Your task to perform on an android device: turn pop-ups on in chrome Image 0: 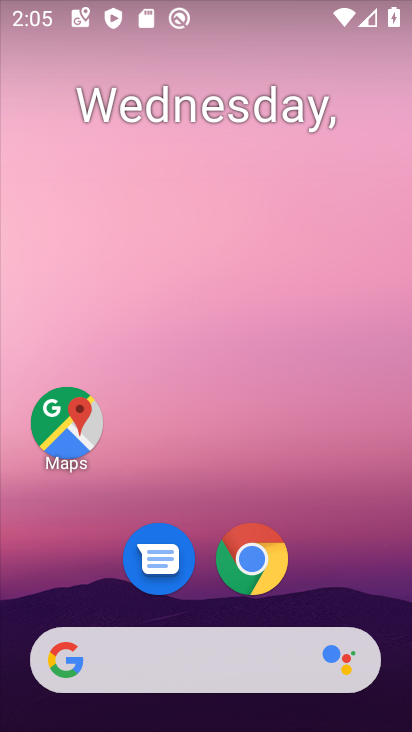
Step 0: press home button
Your task to perform on an android device: turn pop-ups on in chrome Image 1: 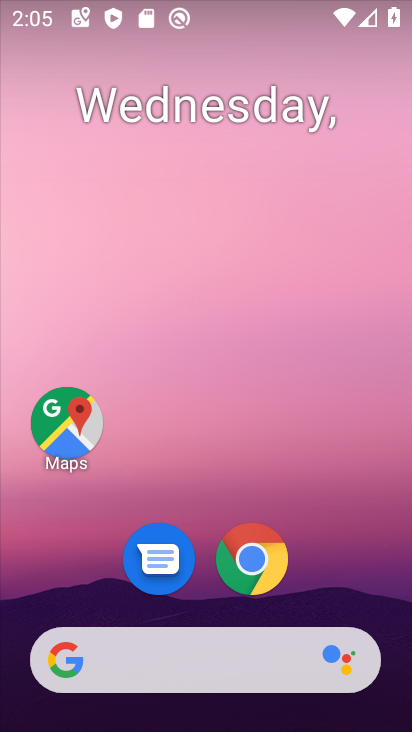
Step 1: drag from (359, 553) to (376, 6)
Your task to perform on an android device: turn pop-ups on in chrome Image 2: 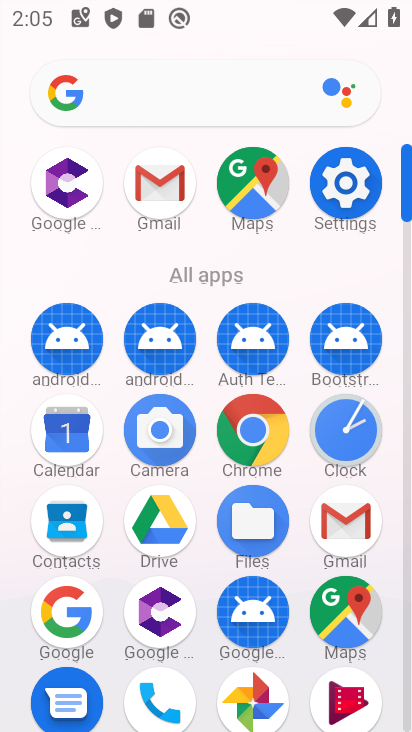
Step 2: click (262, 433)
Your task to perform on an android device: turn pop-ups on in chrome Image 3: 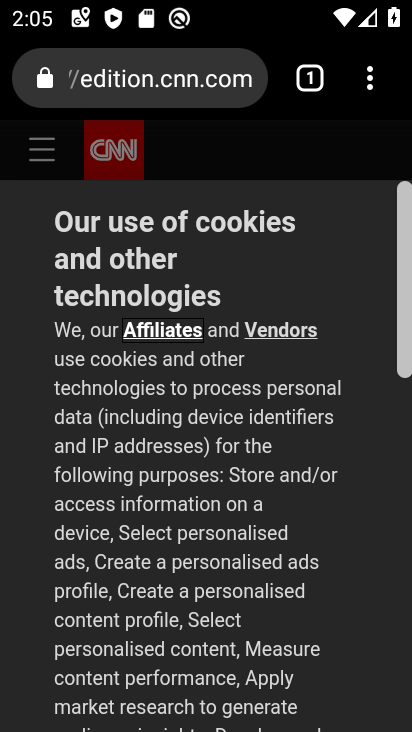
Step 3: drag from (371, 80) to (78, 430)
Your task to perform on an android device: turn pop-ups on in chrome Image 4: 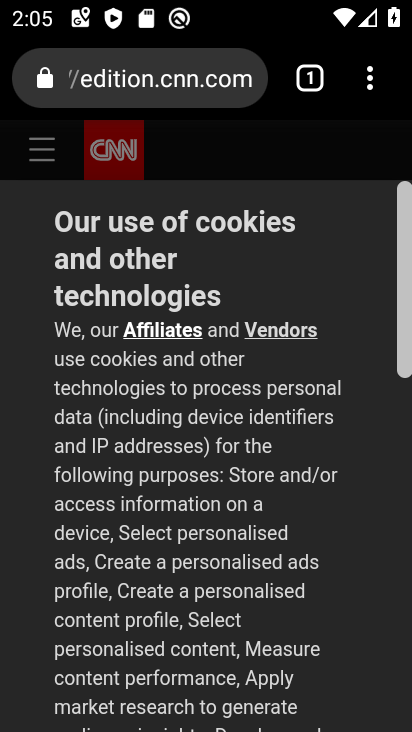
Step 4: click (78, 430)
Your task to perform on an android device: turn pop-ups on in chrome Image 5: 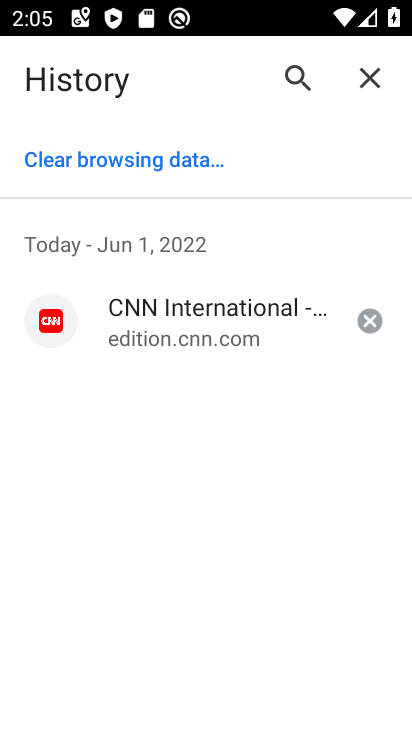
Step 5: click (368, 90)
Your task to perform on an android device: turn pop-ups on in chrome Image 6: 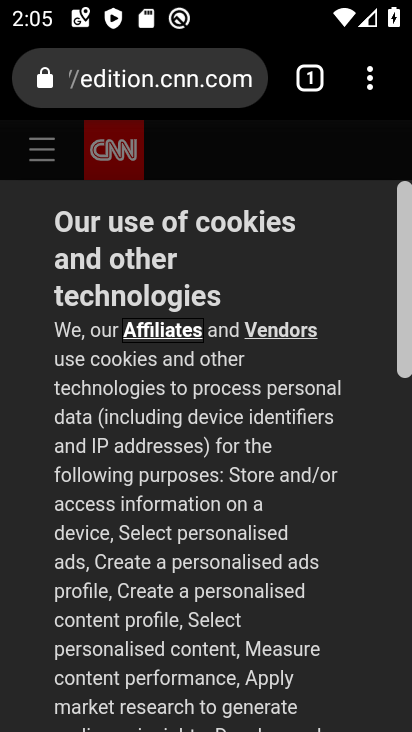
Step 6: drag from (354, 71) to (219, 633)
Your task to perform on an android device: turn pop-ups on in chrome Image 7: 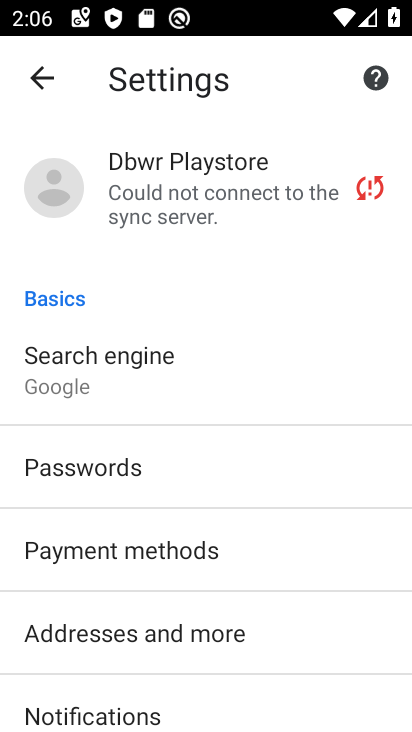
Step 7: drag from (219, 633) to (163, 167)
Your task to perform on an android device: turn pop-ups on in chrome Image 8: 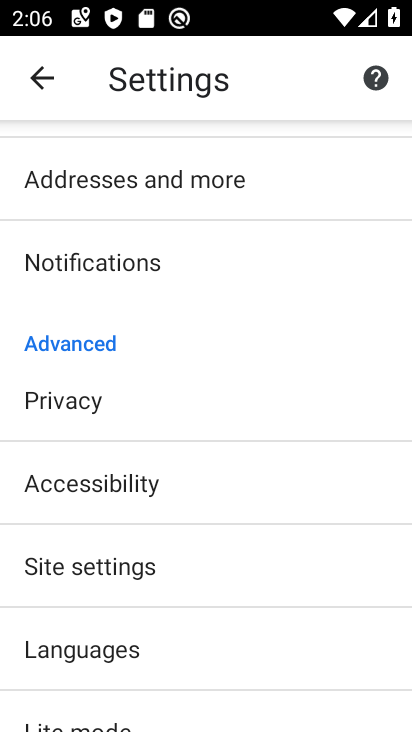
Step 8: click (53, 541)
Your task to perform on an android device: turn pop-ups on in chrome Image 9: 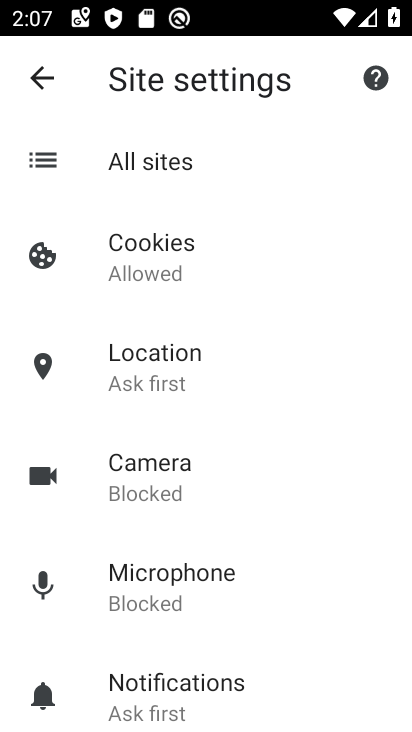
Step 9: drag from (161, 485) to (197, 112)
Your task to perform on an android device: turn pop-ups on in chrome Image 10: 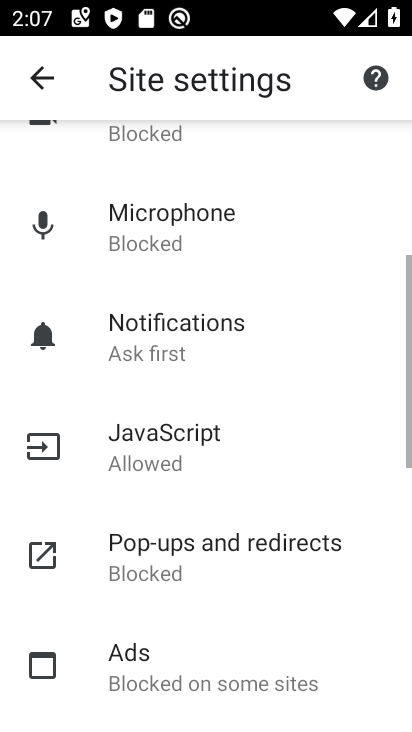
Step 10: drag from (171, 489) to (130, 265)
Your task to perform on an android device: turn pop-ups on in chrome Image 11: 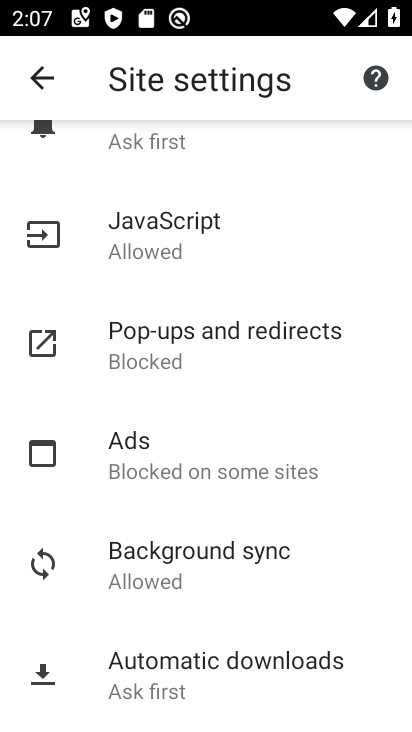
Step 11: click (185, 354)
Your task to perform on an android device: turn pop-ups on in chrome Image 12: 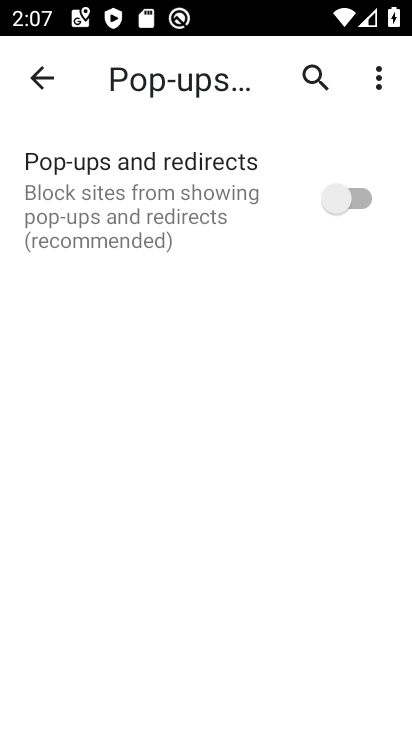
Step 12: click (183, 228)
Your task to perform on an android device: turn pop-ups on in chrome Image 13: 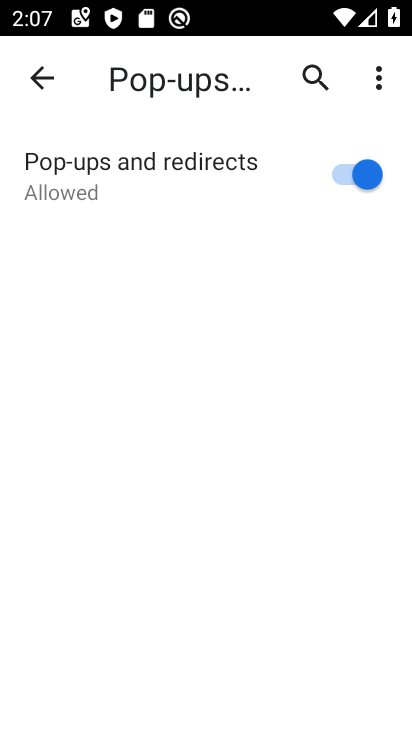
Step 13: task complete